Your task to perform on an android device: Search for pizza restaurants on Maps Image 0: 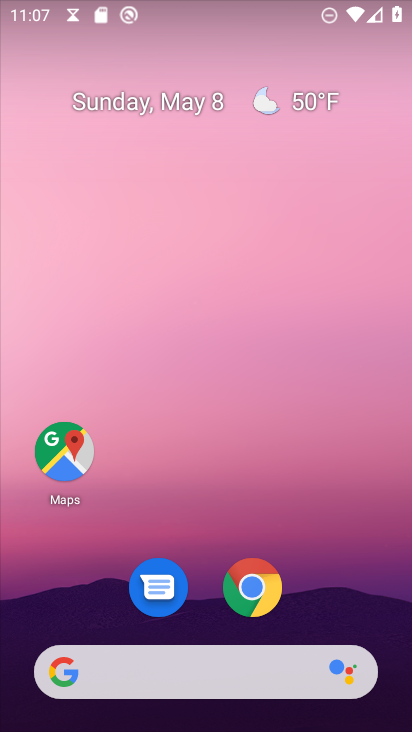
Step 0: click (56, 453)
Your task to perform on an android device: Search for pizza restaurants on Maps Image 1: 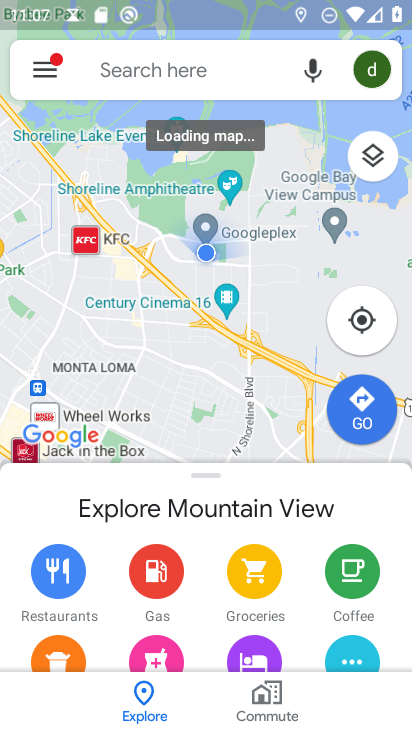
Step 1: click (192, 73)
Your task to perform on an android device: Search for pizza restaurants on Maps Image 2: 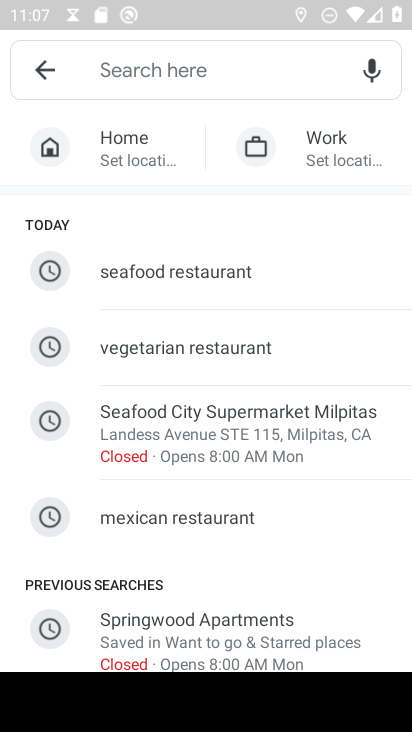
Step 2: drag from (226, 557) to (183, 521)
Your task to perform on an android device: Search for pizza restaurants on Maps Image 3: 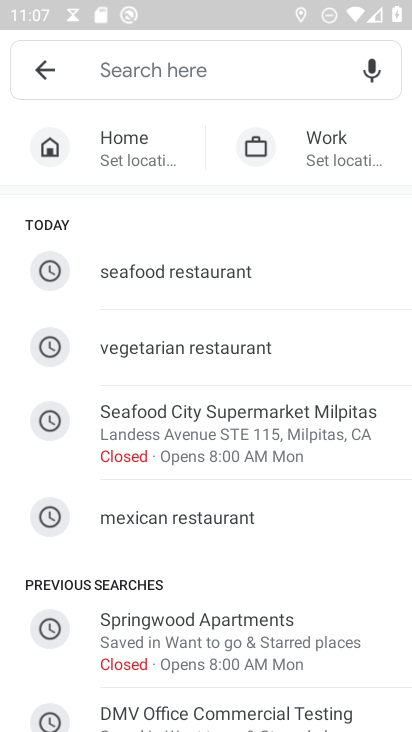
Step 3: click (176, 68)
Your task to perform on an android device: Search for pizza restaurants on Maps Image 4: 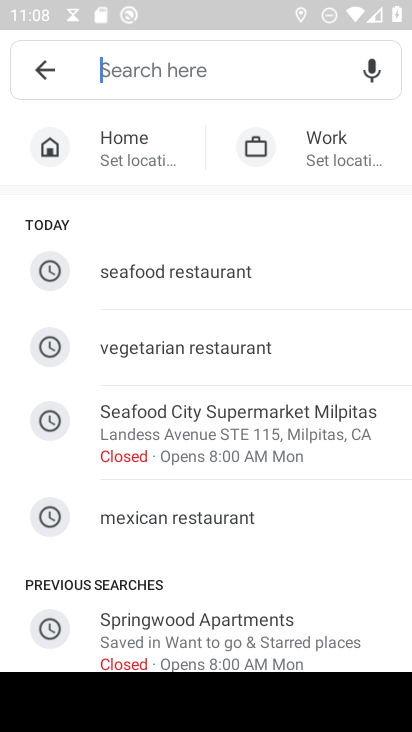
Step 4: type "pizza restaurants"
Your task to perform on an android device: Search for pizza restaurants on Maps Image 5: 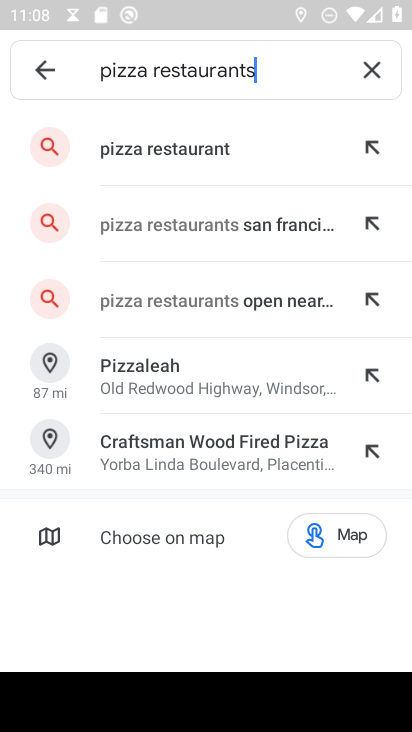
Step 5: click (175, 146)
Your task to perform on an android device: Search for pizza restaurants on Maps Image 6: 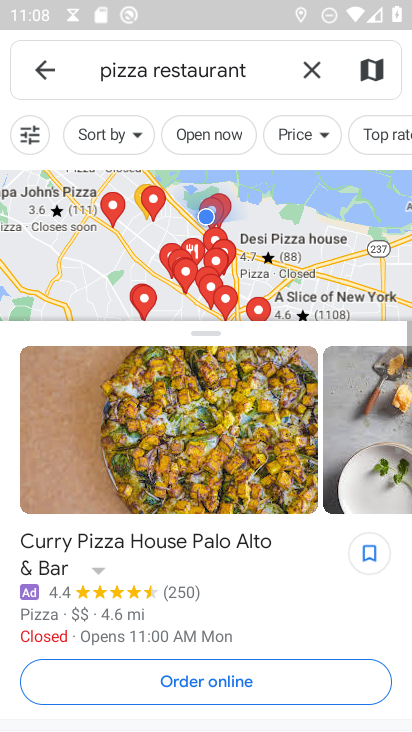
Step 6: task complete